Your task to perform on an android device: Open location settings Image 0: 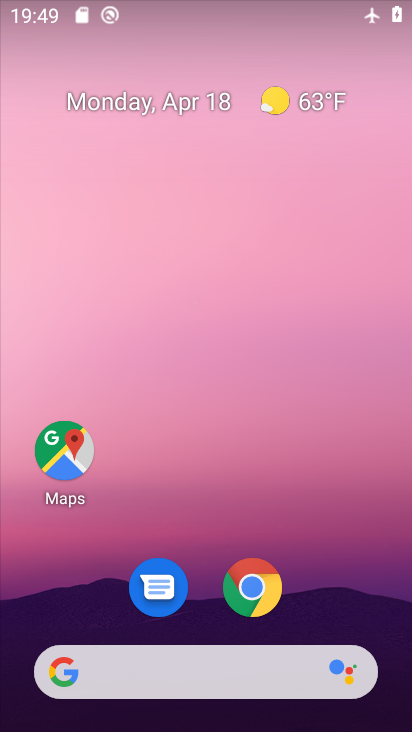
Step 0: drag from (315, 615) to (294, 140)
Your task to perform on an android device: Open location settings Image 1: 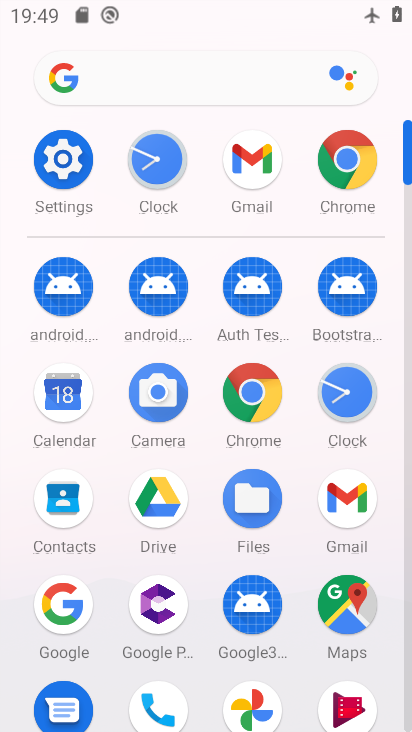
Step 1: click (59, 184)
Your task to perform on an android device: Open location settings Image 2: 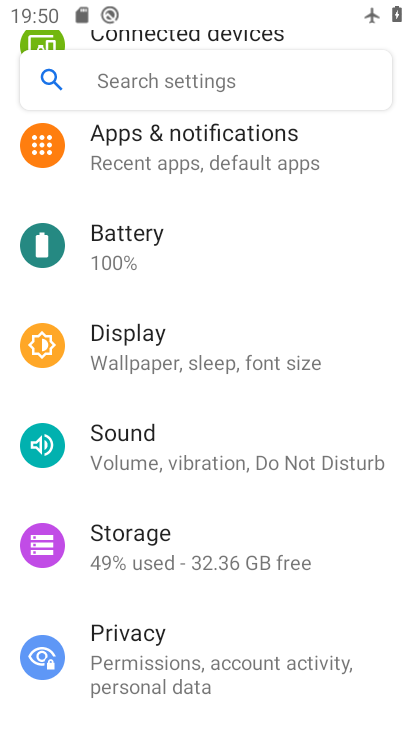
Step 2: drag from (242, 591) to (331, 101)
Your task to perform on an android device: Open location settings Image 3: 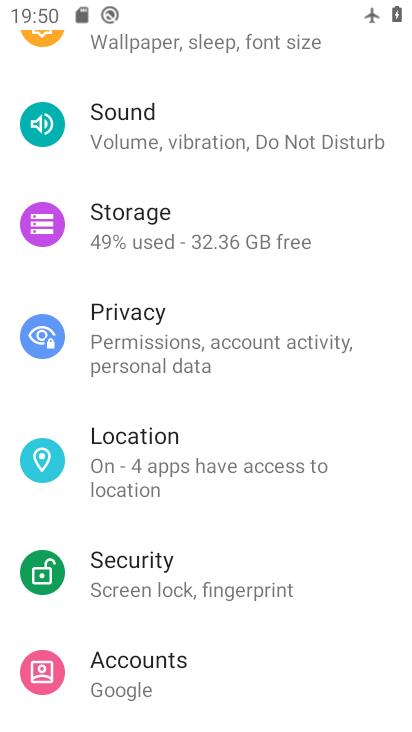
Step 3: click (221, 459)
Your task to perform on an android device: Open location settings Image 4: 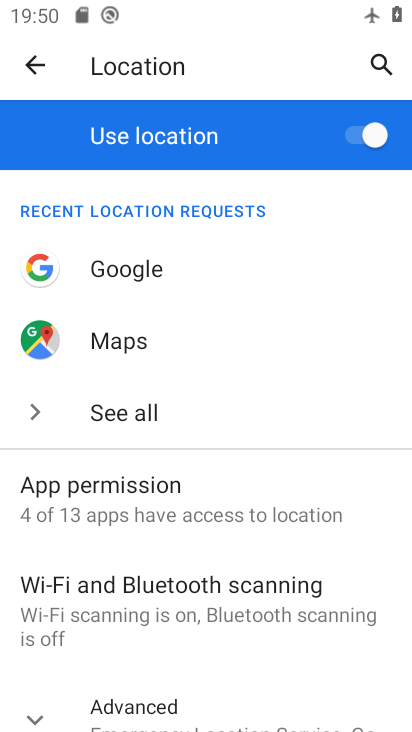
Step 4: task complete